Your task to perform on an android device: See recent photos Image 0: 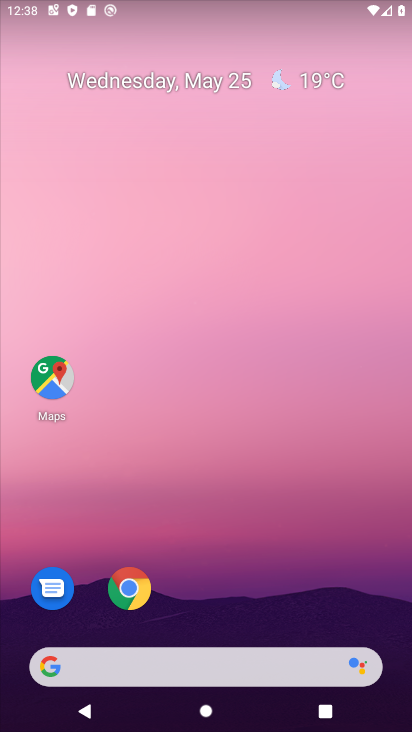
Step 0: drag from (166, 632) to (245, 156)
Your task to perform on an android device: See recent photos Image 1: 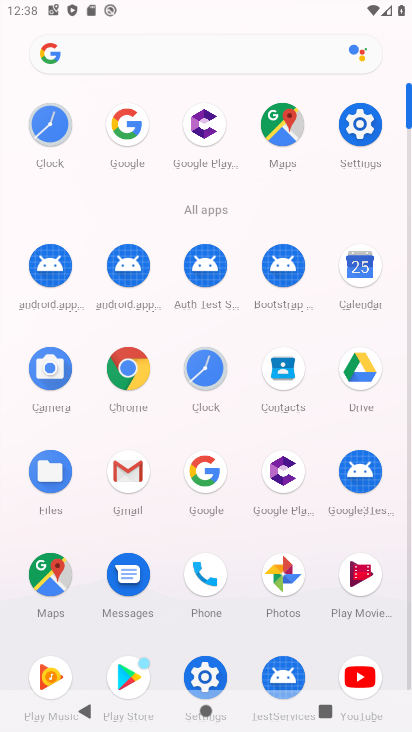
Step 1: click (290, 596)
Your task to perform on an android device: See recent photos Image 2: 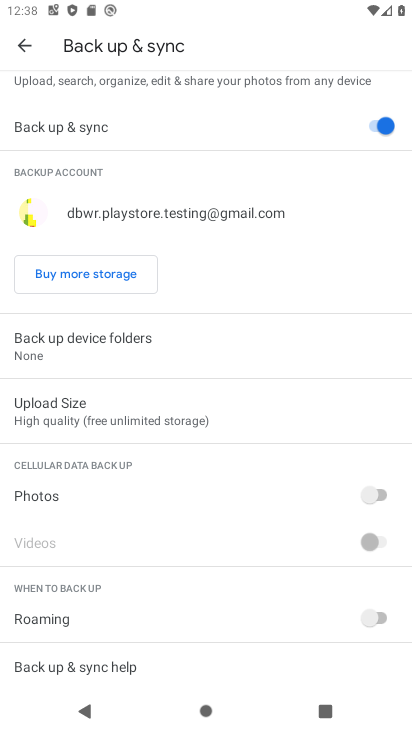
Step 2: click (30, 47)
Your task to perform on an android device: See recent photos Image 3: 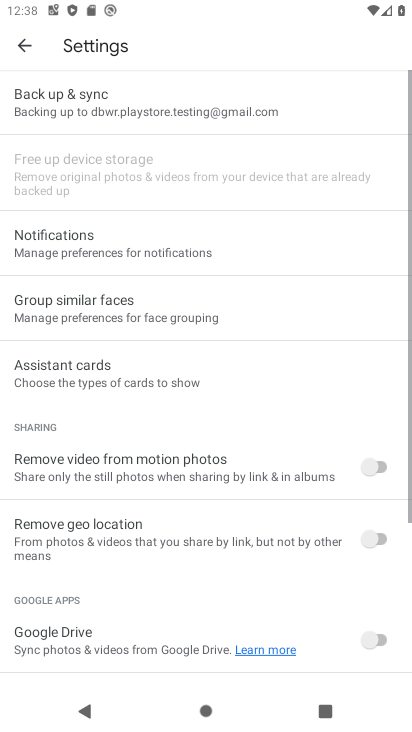
Step 3: click (30, 47)
Your task to perform on an android device: See recent photos Image 4: 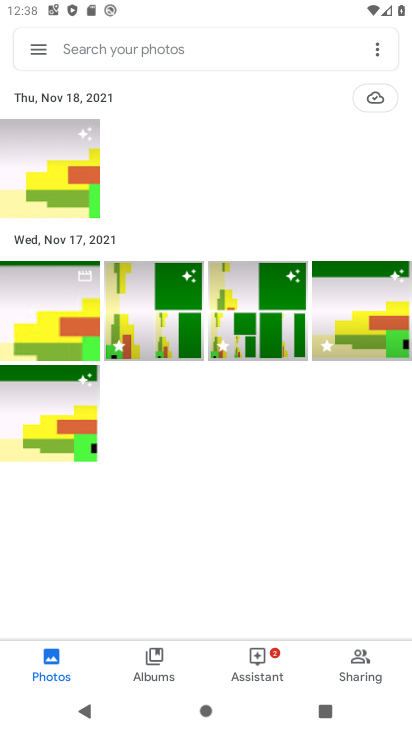
Step 4: task complete